Your task to perform on an android device: add a label to a message in the gmail app Image 0: 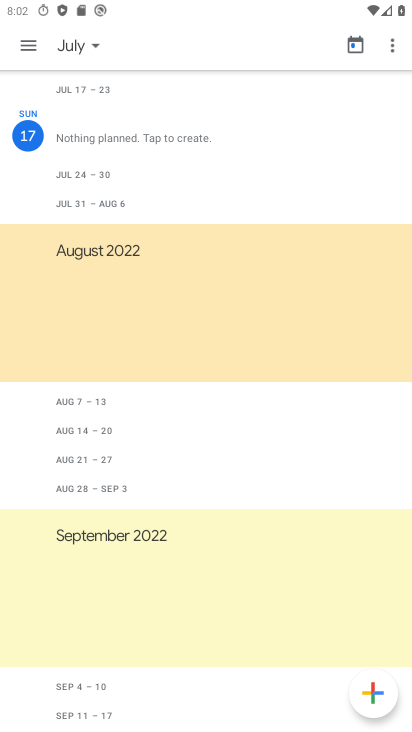
Step 0: press home button
Your task to perform on an android device: add a label to a message in the gmail app Image 1: 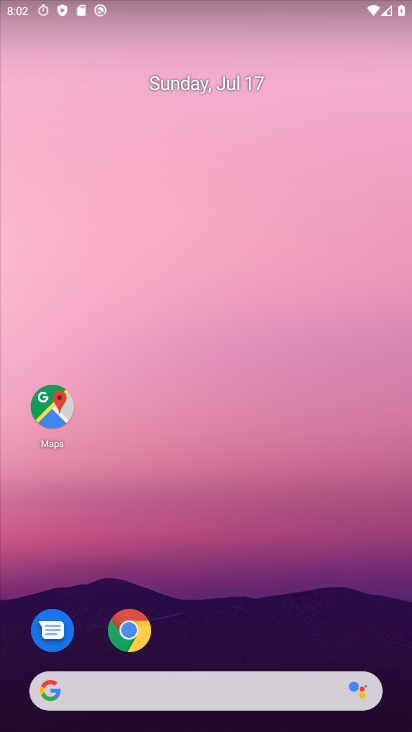
Step 1: click (172, 220)
Your task to perform on an android device: add a label to a message in the gmail app Image 2: 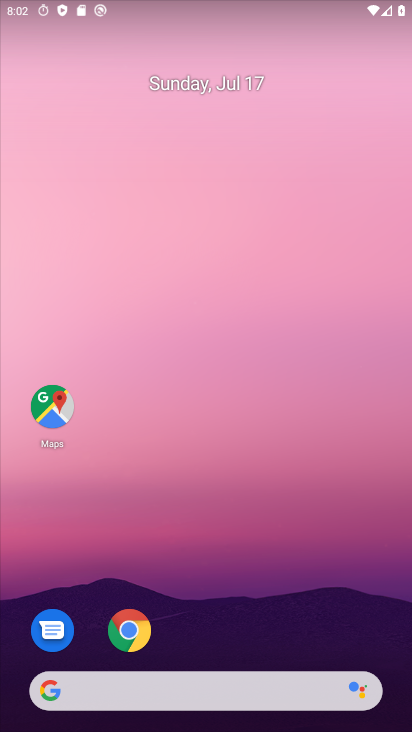
Step 2: drag from (20, 704) to (199, 231)
Your task to perform on an android device: add a label to a message in the gmail app Image 3: 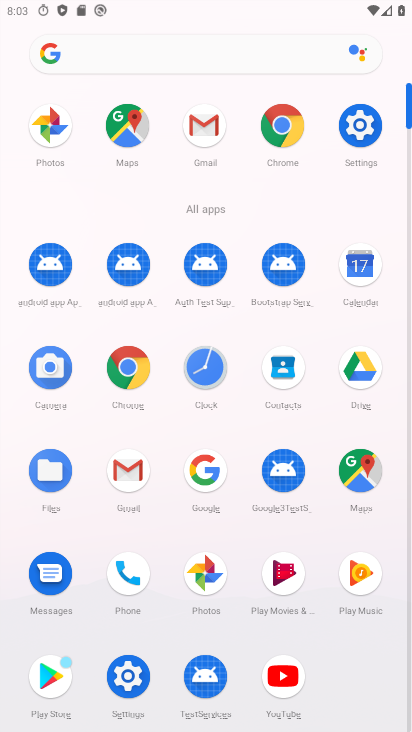
Step 3: click (123, 472)
Your task to perform on an android device: add a label to a message in the gmail app Image 4: 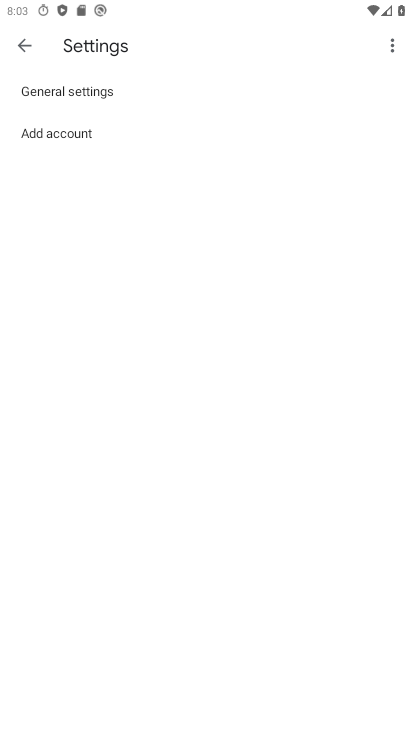
Step 4: click (18, 52)
Your task to perform on an android device: add a label to a message in the gmail app Image 5: 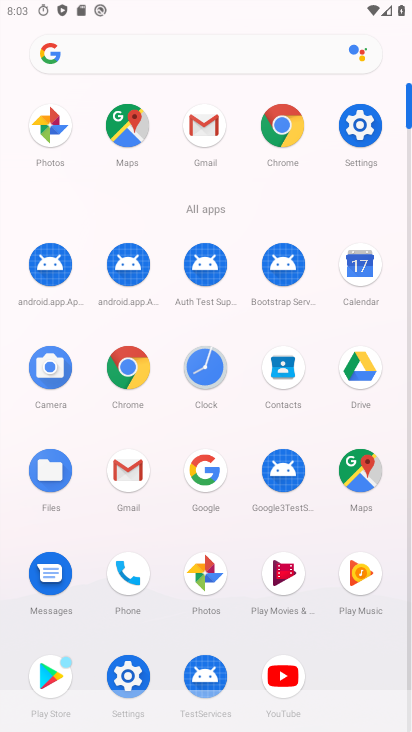
Step 5: click (129, 474)
Your task to perform on an android device: add a label to a message in the gmail app Image 6: 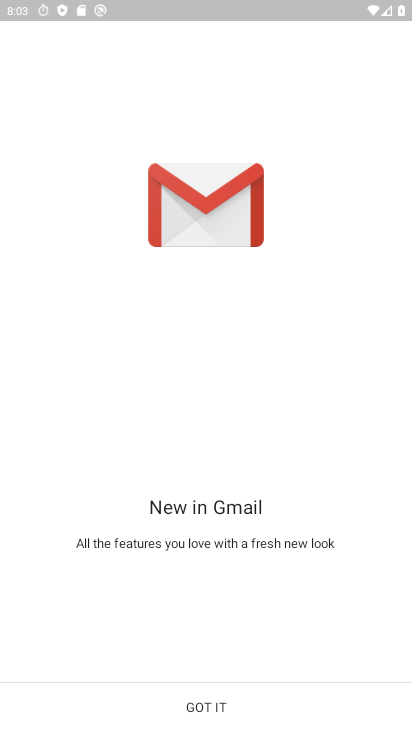
Step 6: click (181, 698)
Your task to perform on an android device: add a label to a message in the gmail app Image 7: 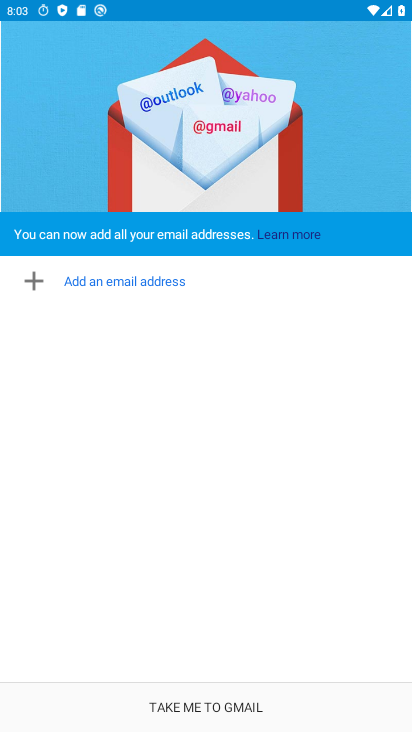
Step 7: click (180, 712)
Your task to perform on an android device: add a label to a message in the gmail app Image 8: 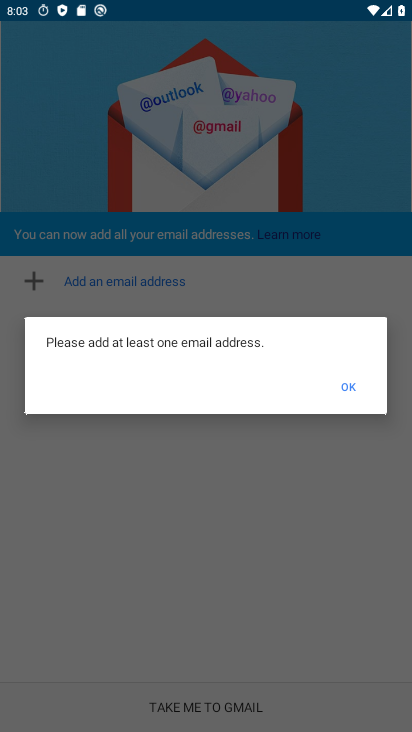
Step 8: click (345, 381)
Your task to perform on an android device: add a label to a message in the gmail app Image 9: 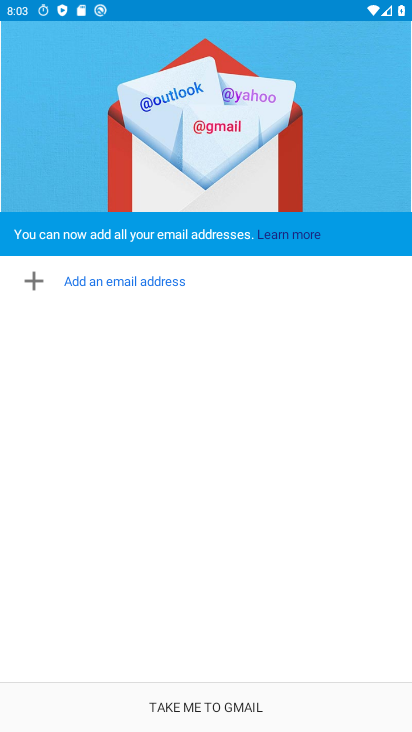
Step 9: click (180, 688)
Your task to perform on an android device: add a label to a message in the gmail app Image 10: 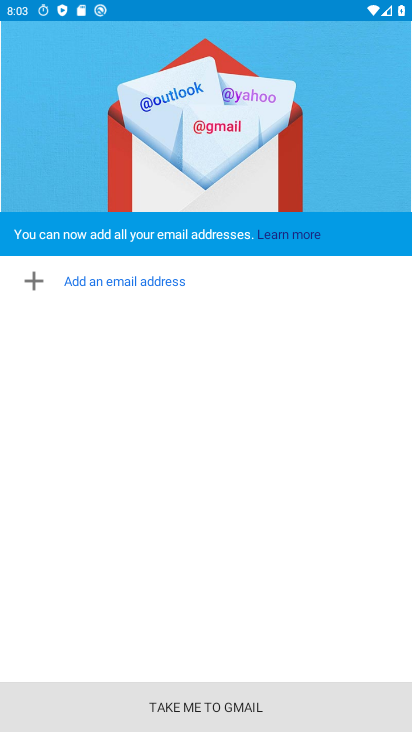
Step 10: click (178, 701)
Your task to perform on an android device: add a label to a message in the gmail app Image 11: 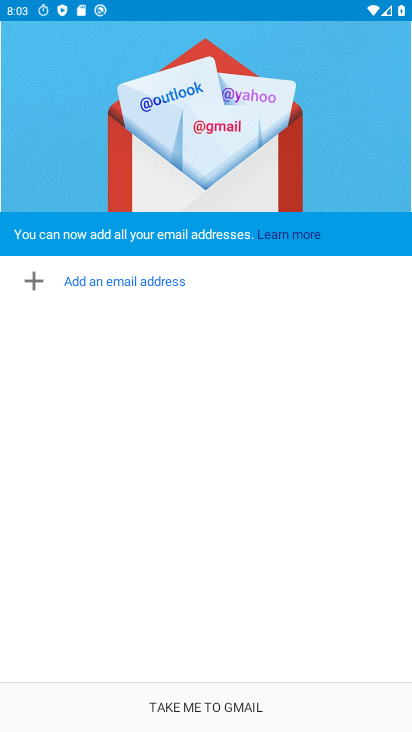
Step 11: task complete